Your task to perform on an android device: What's on my calendar tomorrow? Image 0: 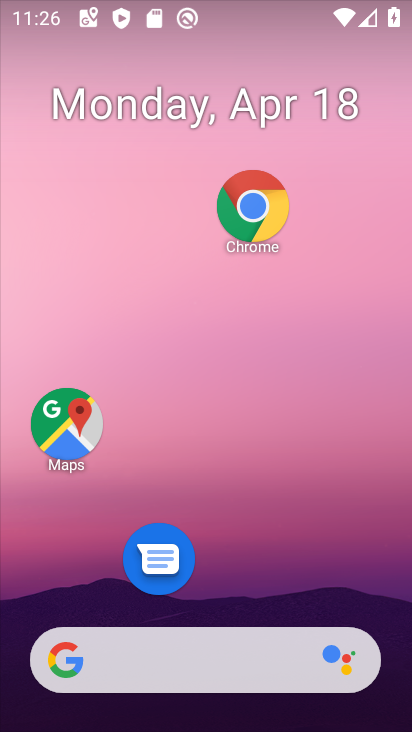
Step 0: drag from (346, 267) to (368, 37)
Your task to perform on an android device: What's on my calendar tomorrow? Image 1: 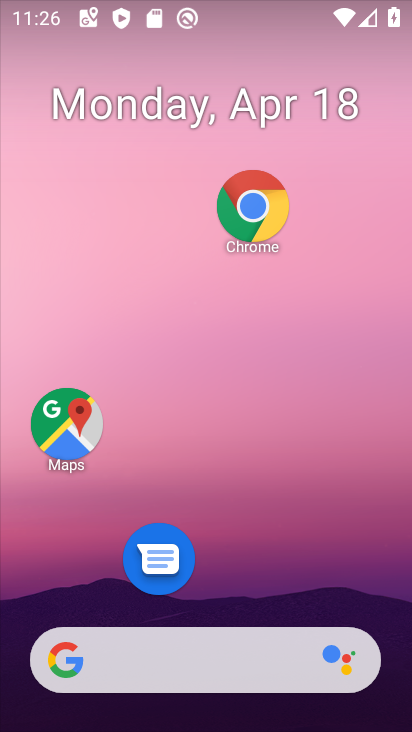
Step 1: drag from (341, 568) to (378, 24)
Your task to perform on an android device: What's on my calendar tomorrow? Image 2: 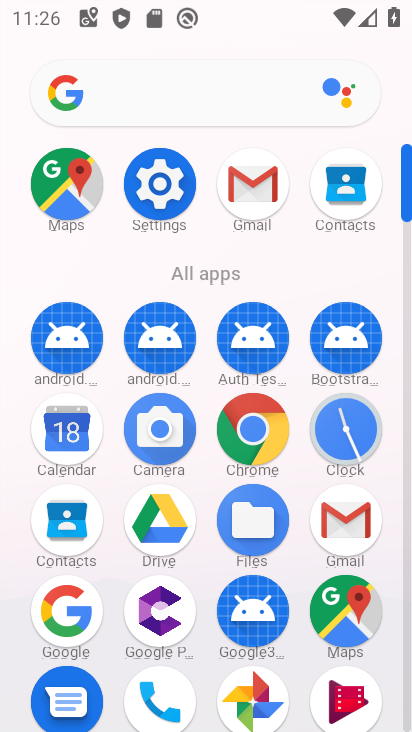
Step 2: click (77, 449)
Your task to perform on an android device: What's on my calendar tomorrow? Image 3: 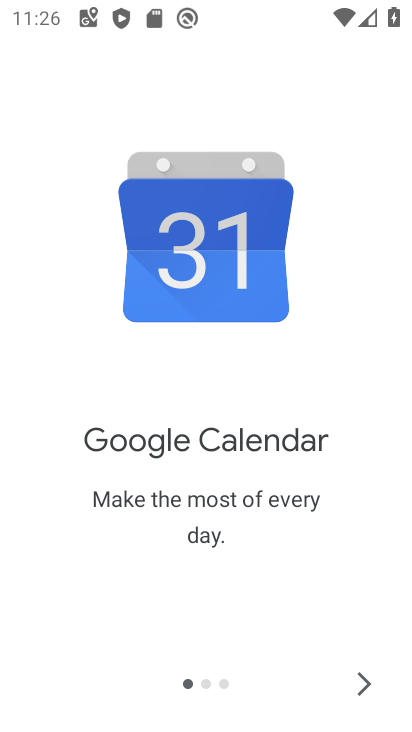
Step 3: click (372, 683)
Your task to perform on an android device: What's on my calendar tomorrow? Image 4: 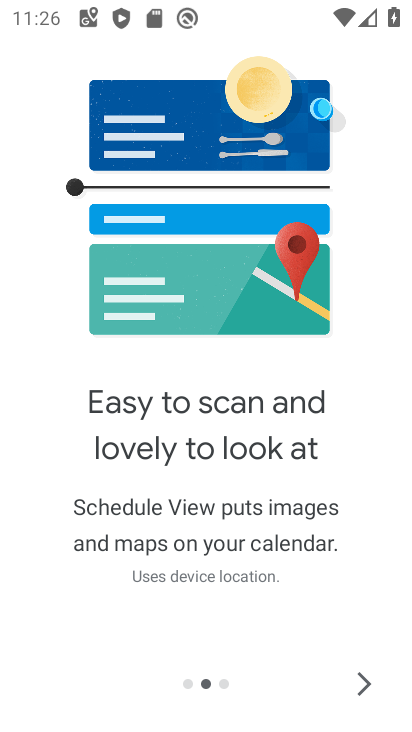
Step 4: click (372, 683)
Your task to perform on an android device: What's on my calendar tomorrow? Image 5: 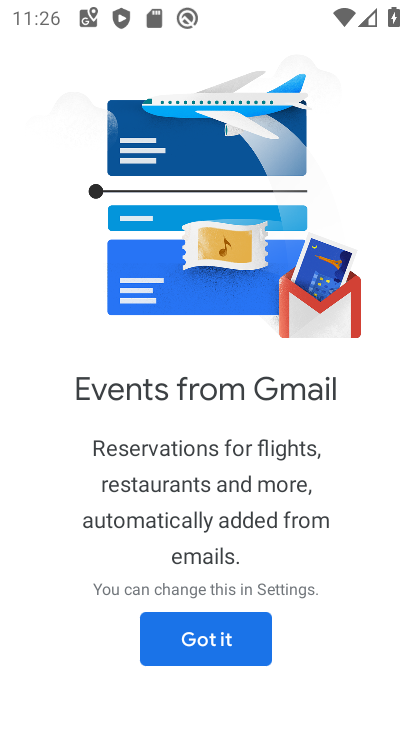
Step 5: click (228, 628)
Your task to perform on an android device: What's on my calendar tomorrow? Image 6: 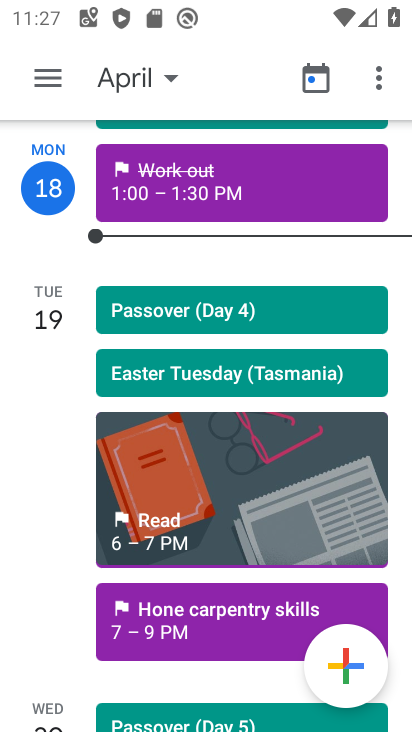
Step 6: click (164, 72)
Your task to perform on an android device: What's on my calendar tomorrow? Image 7: 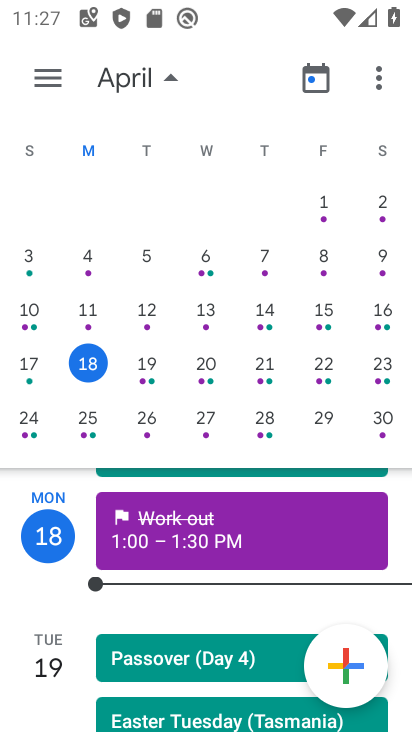
Step 7: click (157, 367)
Your task to perform on an android device: What's on my calendar tomorrow? Image 8: 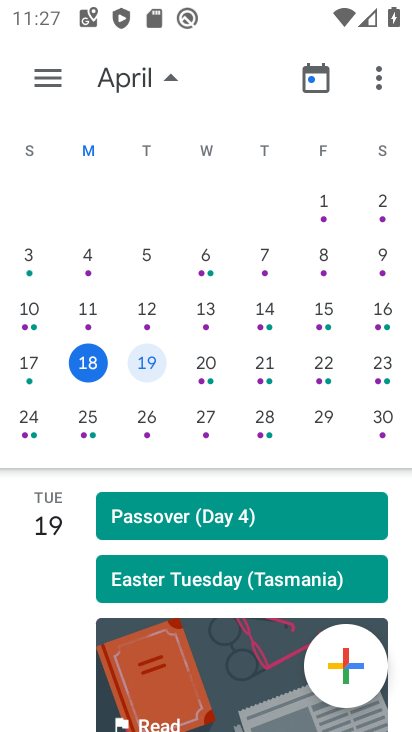
Step 8: click (141, 358)
Your task to perform on an android device: What's on my calendar tomorrow? Image 9: 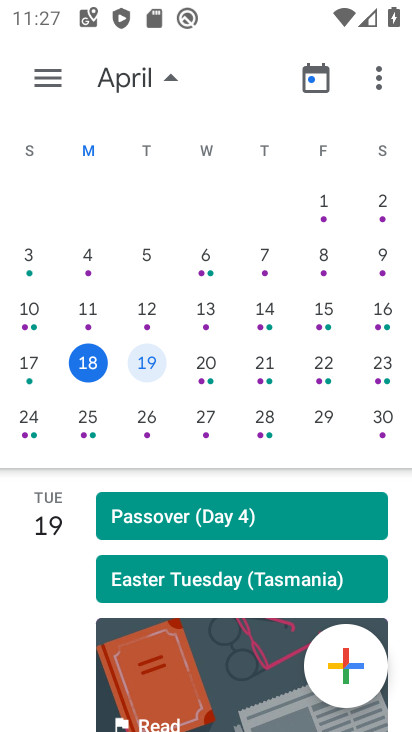
Step 9: click (203, 368)
Your task to perform on an android device: What's on my calendar tomorrow? Image 10: 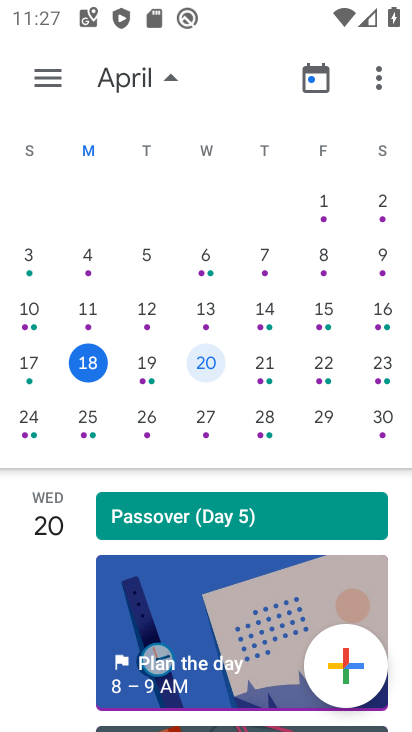
Step 10: task complete